Your task to perform on an android device: open app "Expedia: Hotels, Flights & Car" Image 0: 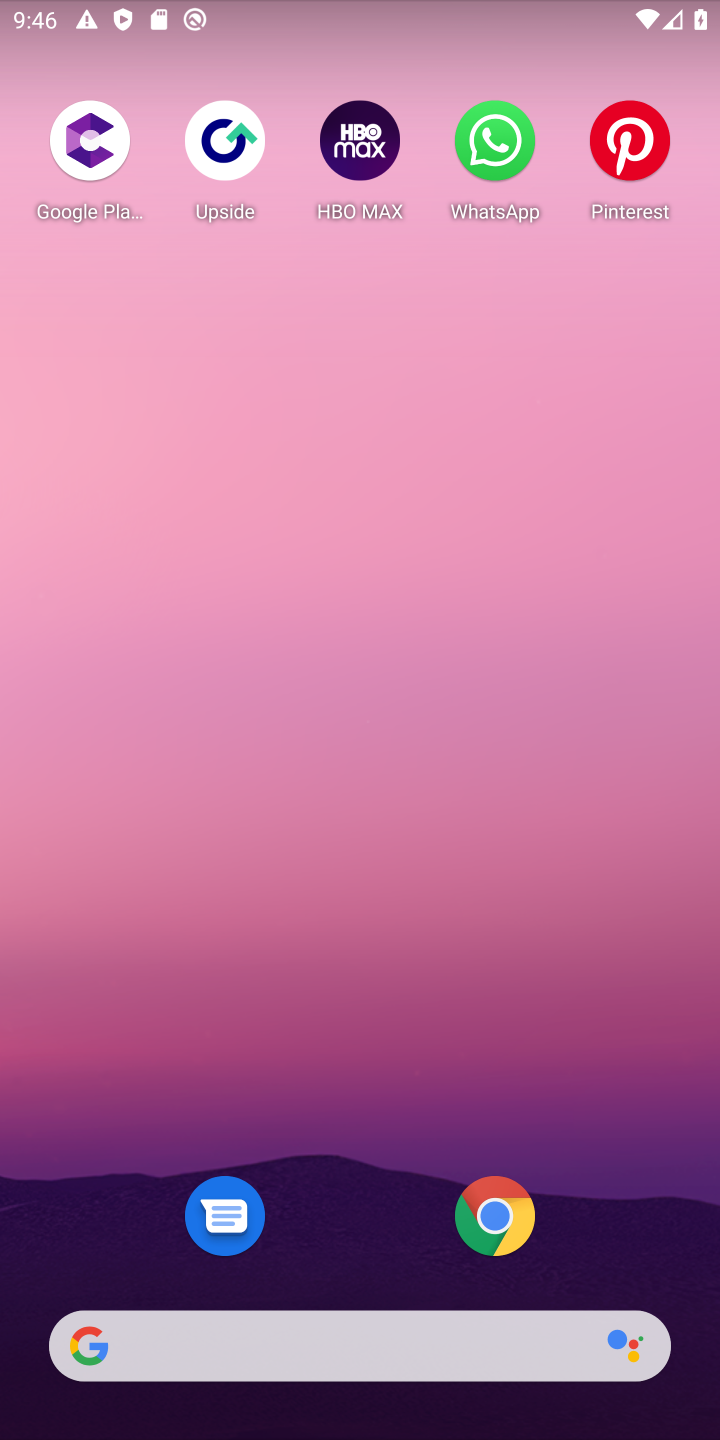
Step 0: drag from (323, 1187) to (377, 274)
Your task to perform on an android device: open app "Expedia: Hotels, Flights & Car" Image 1: 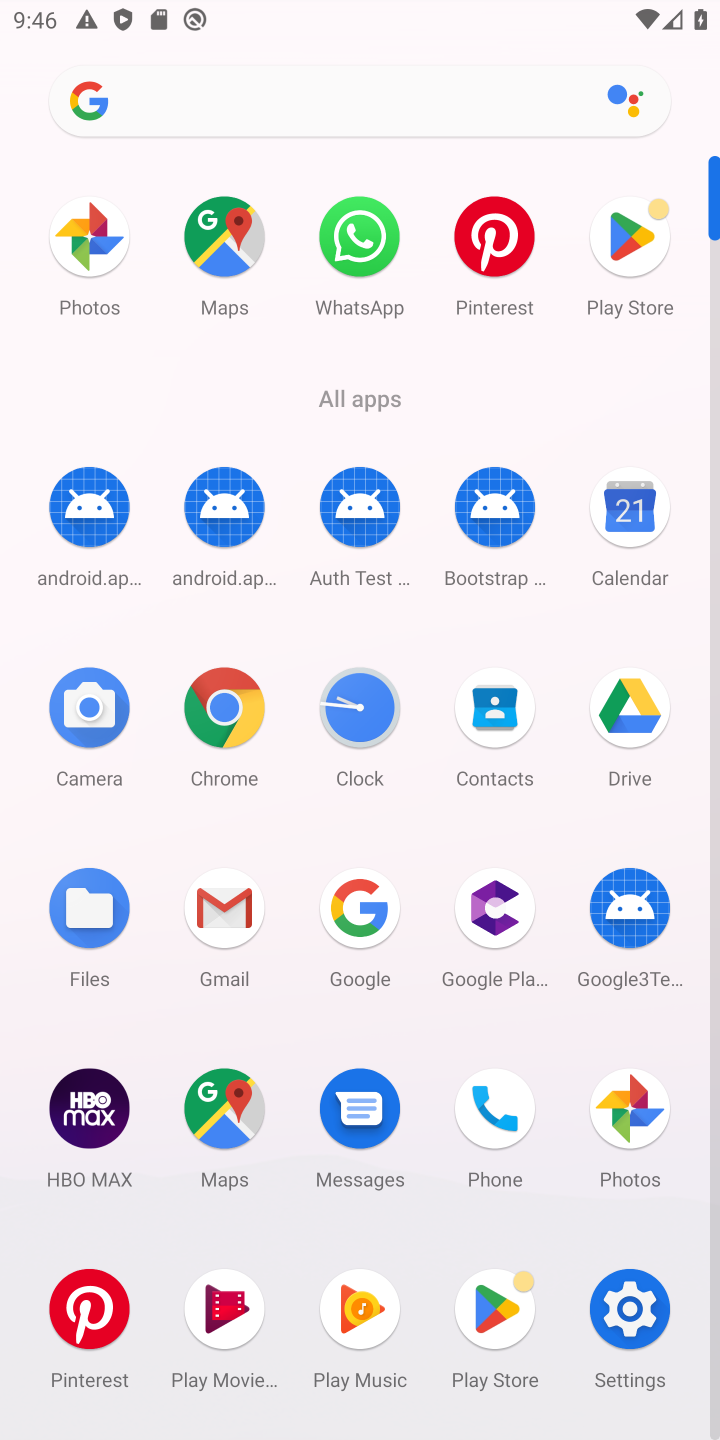
Step 1: click (622, 239)
Your task to perform on an android device: open app "Expedia: Hotels, Flights & Car" Image 2: 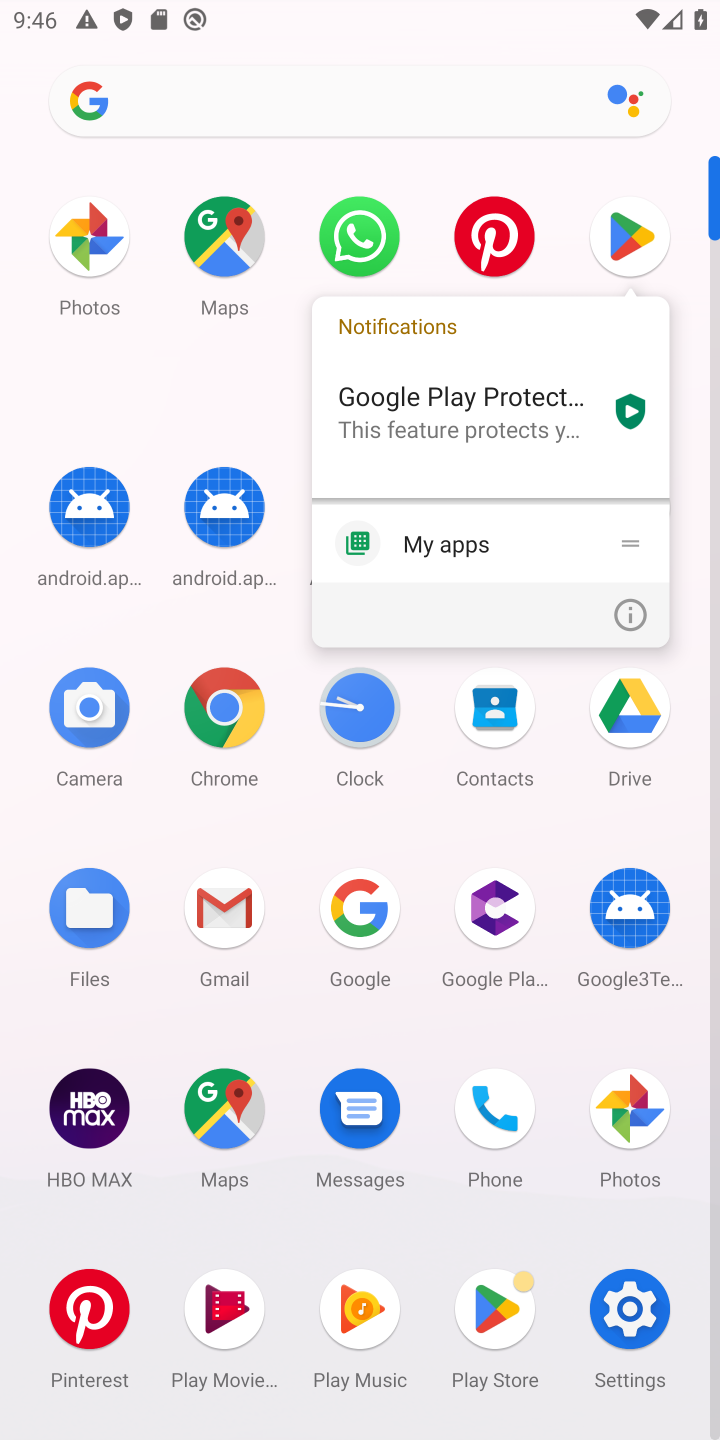
Step 2: click (610, 239)
Your task to perform on an android device: open app "Expedia: Hotels, Flights & Car" Image 3: 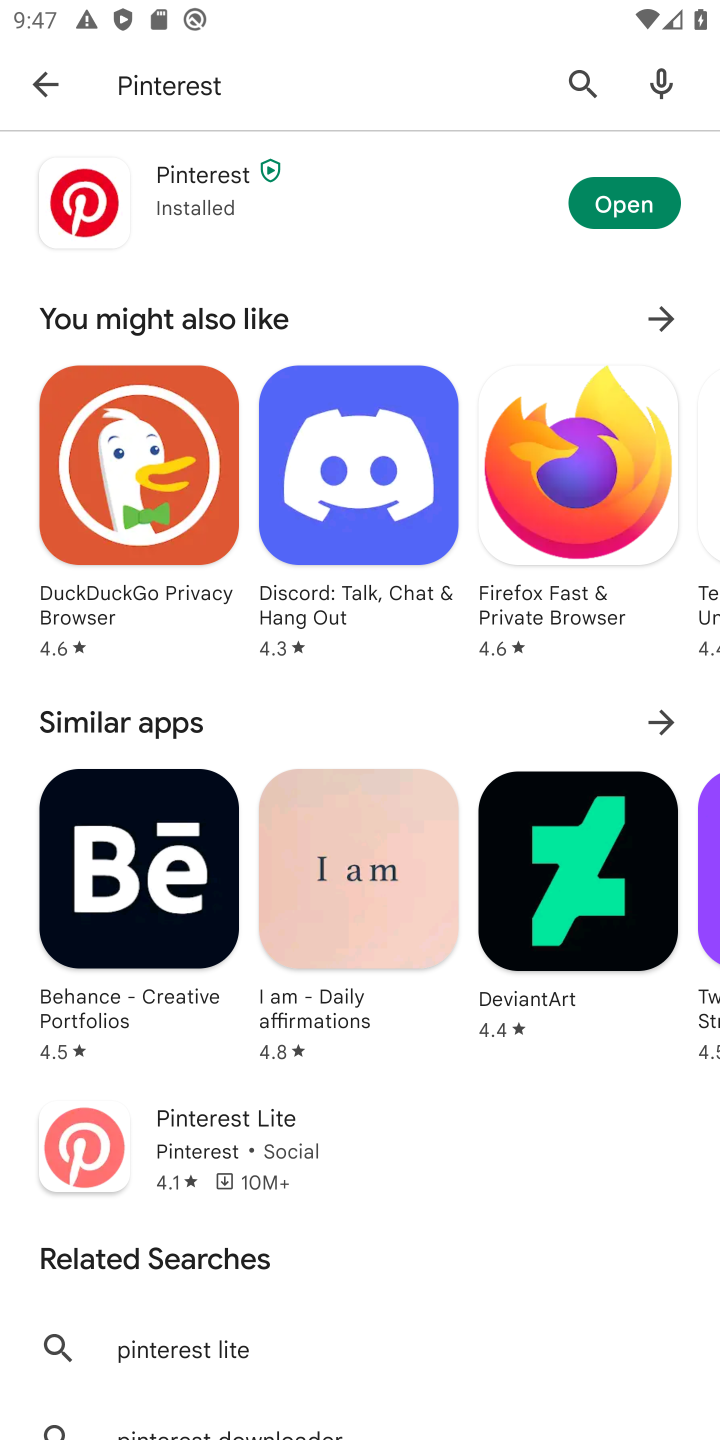
Step 3: click (48, 92)
Your task to perform on an android device: open app "Expedia: Hotels, Flights & Car" Image 4: 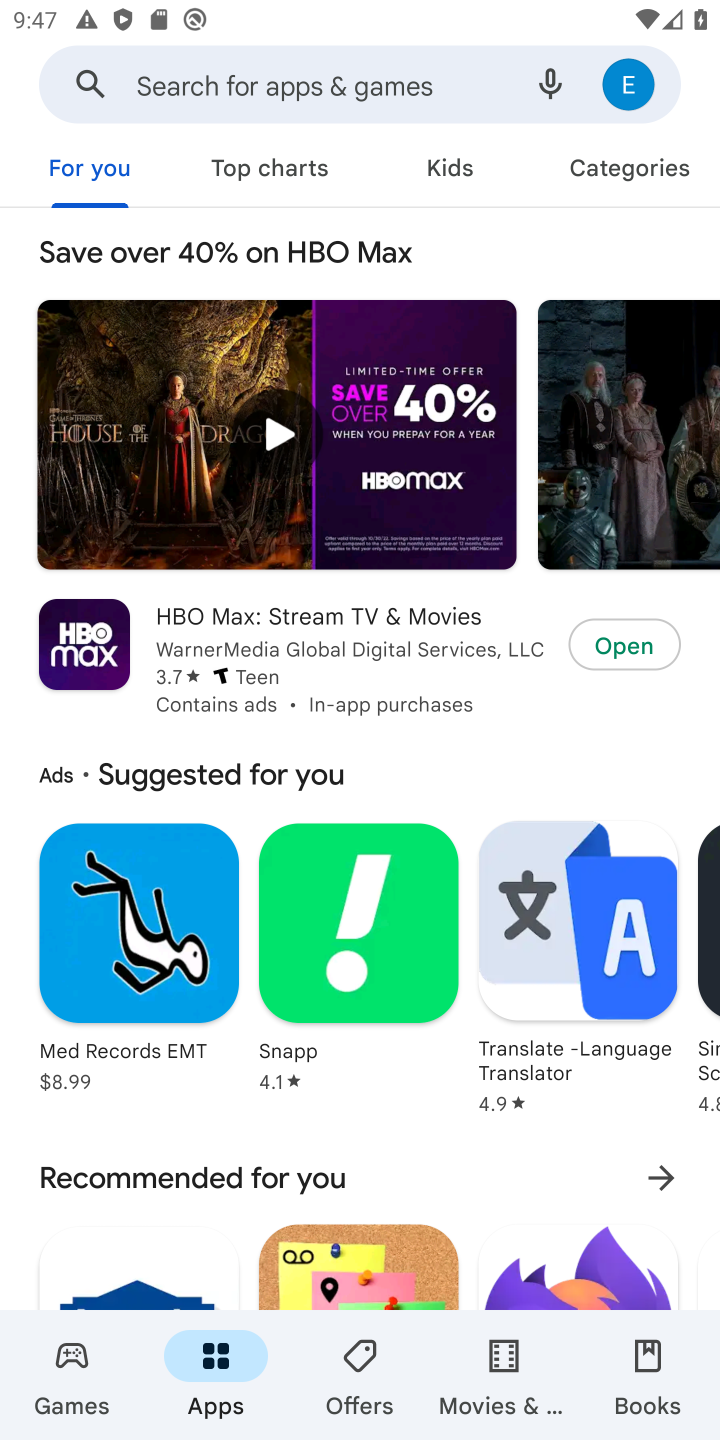
Step 4: click (226, 113)
Your task to perform on an android device: open app "Expedia: Hotels, Flights & Car" Image 5: 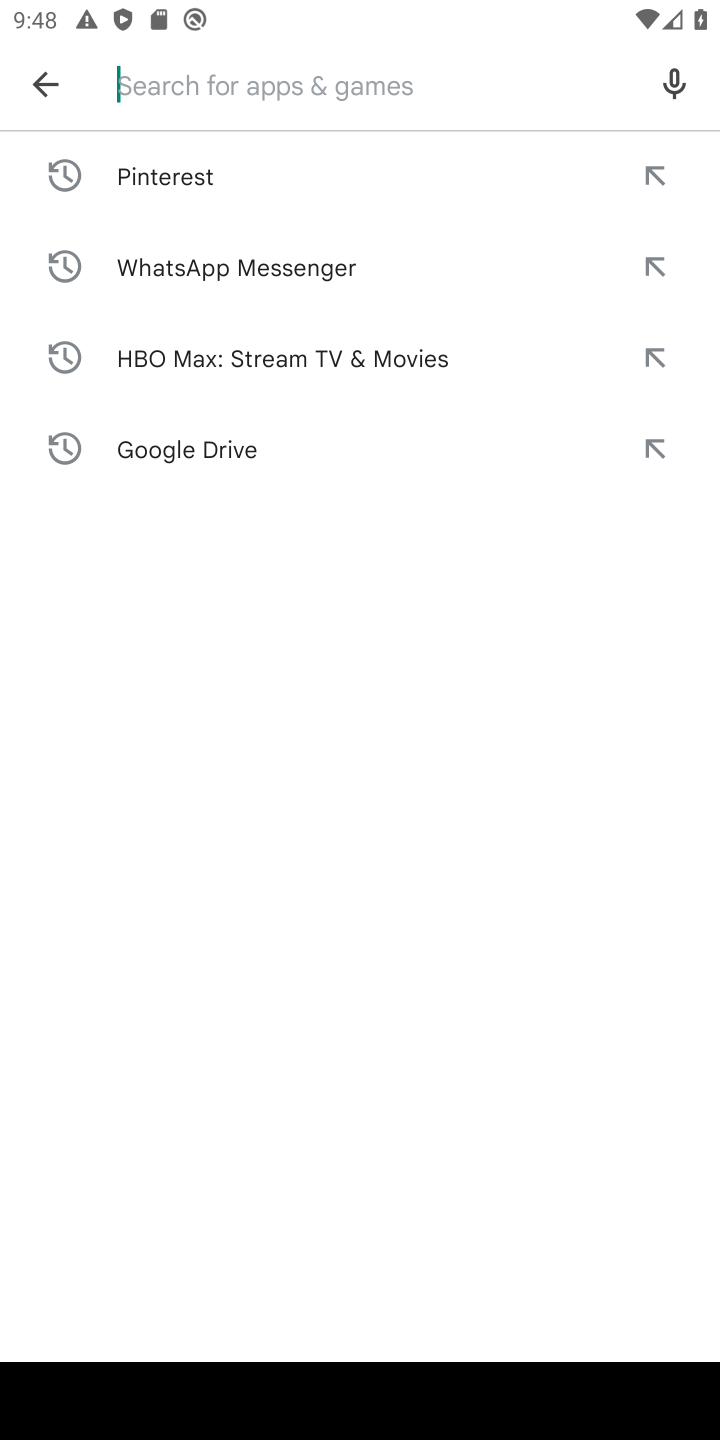
Step 5: type "Expedia: Hotels, Flights & Car"
Your task to perform on an android device: open app "Expedia: Hotels, Flights & Car" Image 6: 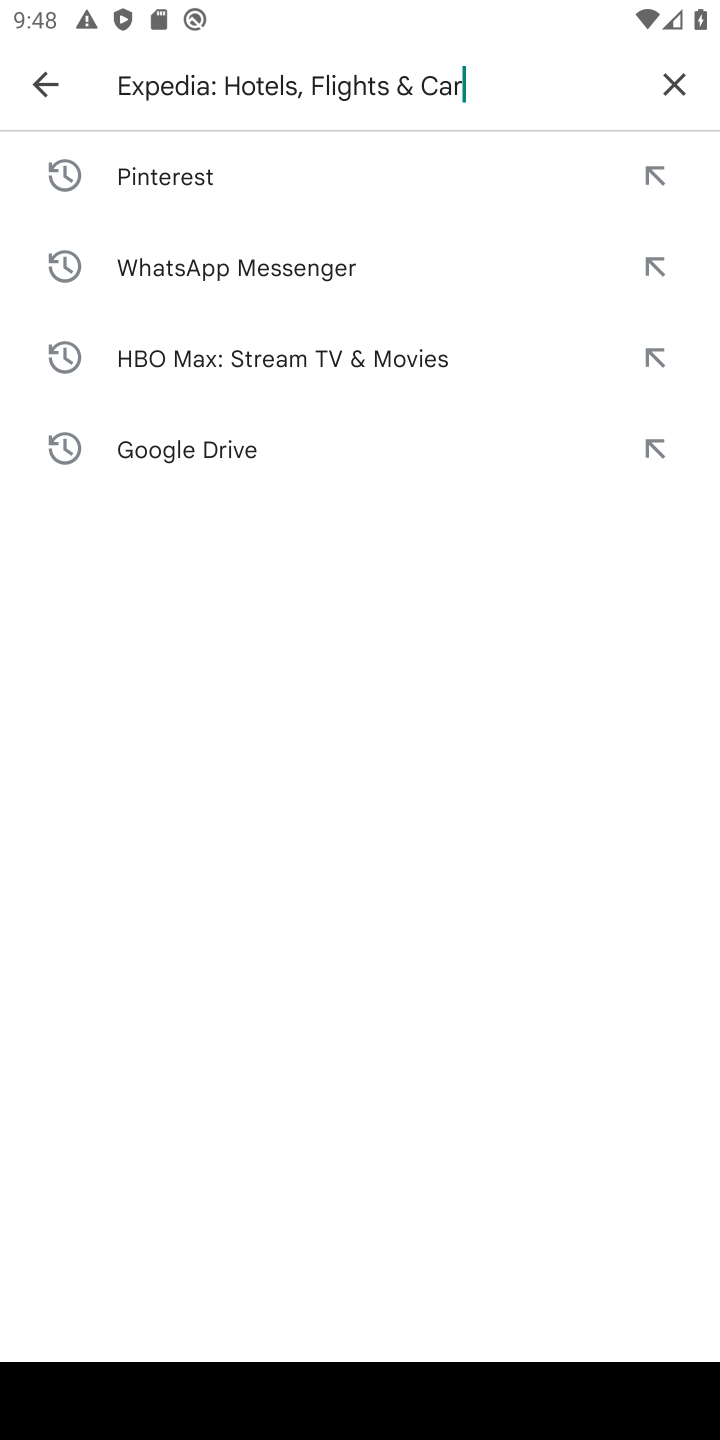
Step 6: press enter
Your task to perform on an android device: open app "Expedia: Hotels, Flights & Car" Image 7: 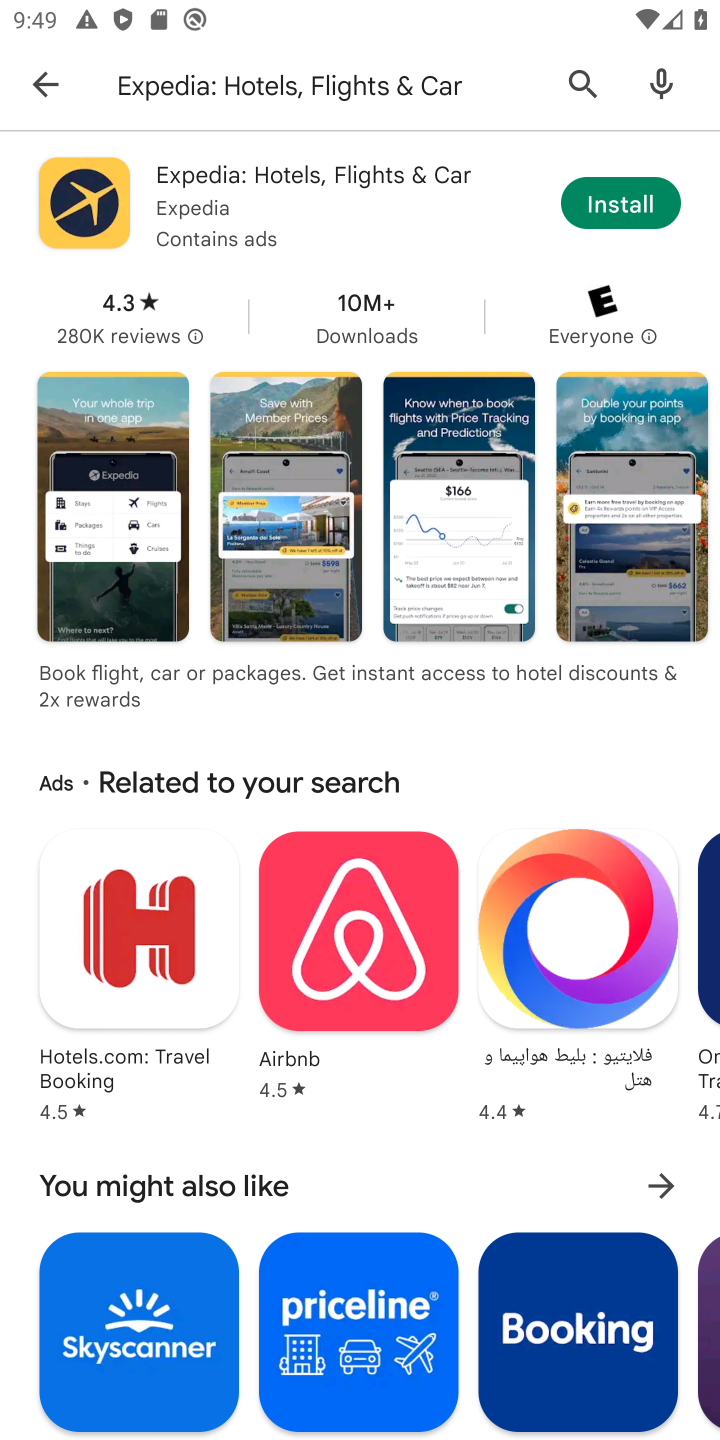
Step 7: task complete